Your task to perform on an android device: turn off javascript in the chrome app Image 0: 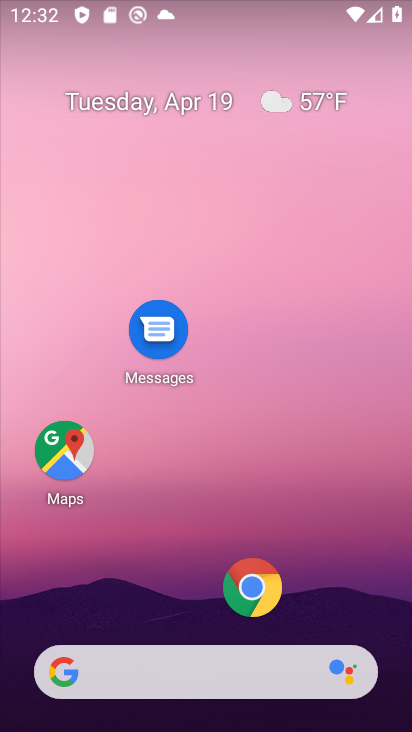
Step 0: drag from (189, 588) to (198, 195)
Your task to perform on an android device: turn off javascript in the chrome app Image 1: 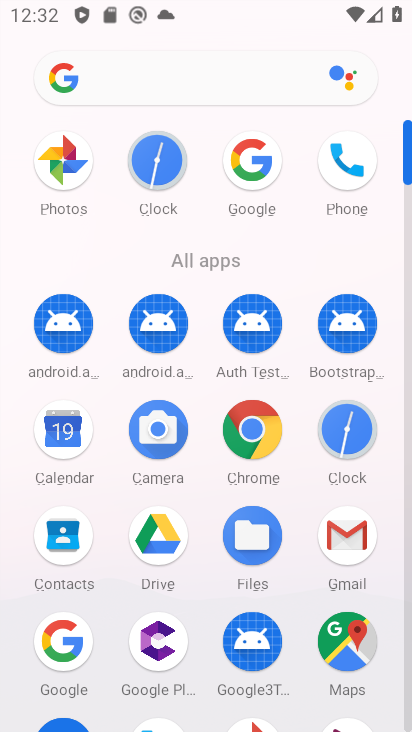
Step 1: click (252, 427)
Your task to perform on an android device: turn off javascript in the chrome app Image 2: 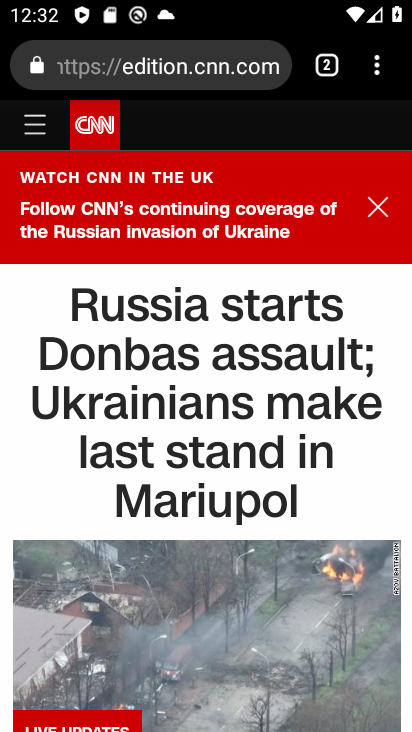
Step 2: click (374, 63)
Your task to perform on an android device: turn off javascript in the chrome app Image 3: 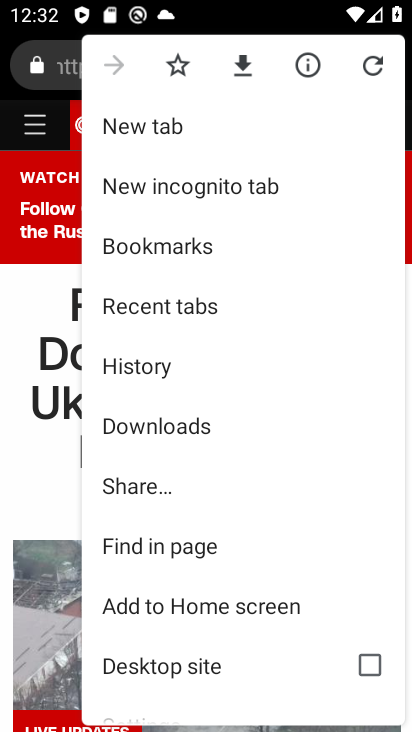
Step 3: drag from (250, 572) to (228, 120)
Your task to perform on an android device: turn off javascript in the chrome app Image 4: 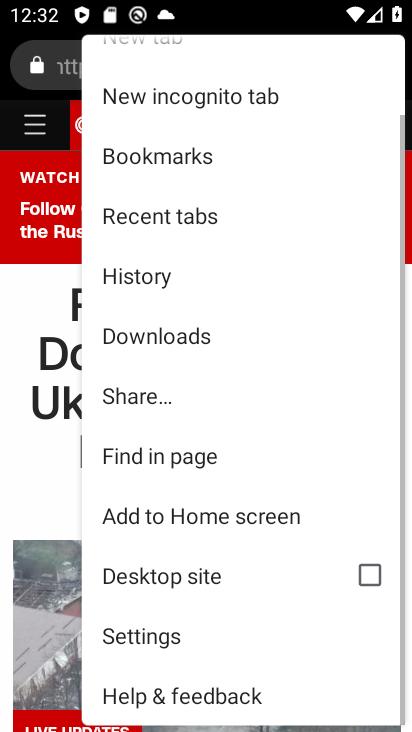
Step 4: click (176, 643)
Your task to perform on an android device: turn off javascript in the chrome app Image 5: 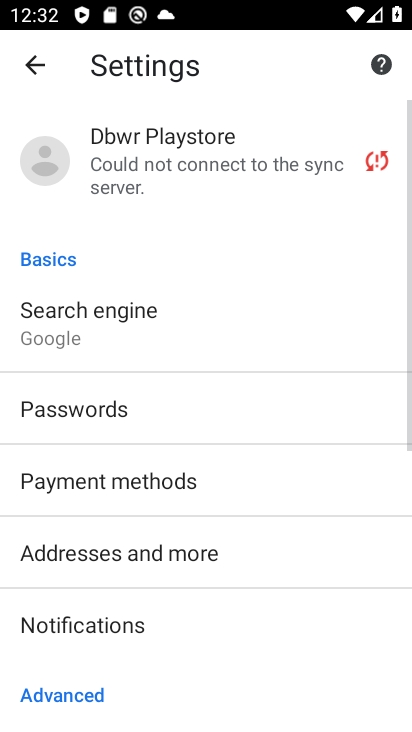
Step 5: drag from (236, 555) to (223, 227)
Your task to perform on an android device: turn off javascript in the chrome app Image 6: 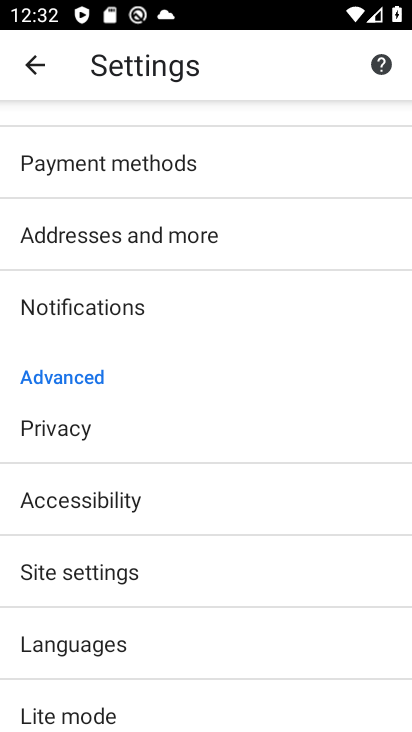
Step 6: click (112, 562)
Your task to perform on an android device: turn off javascript in the chrome app Image 7: 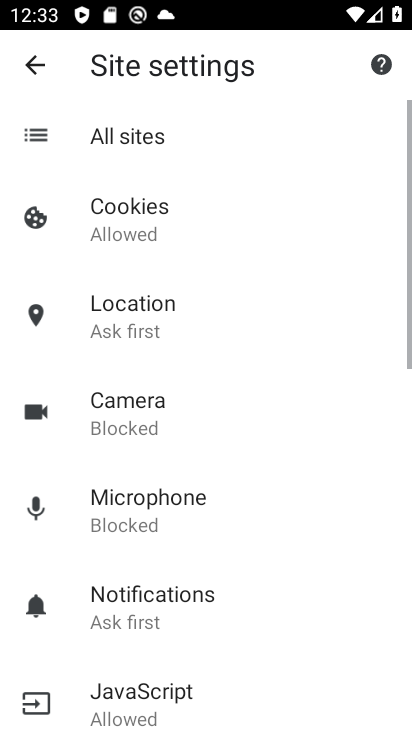
Step 7: drag from (231, 563) to (234, 314)
Your task to perform on an android device: turn off javascript in the chrome app Image 8: 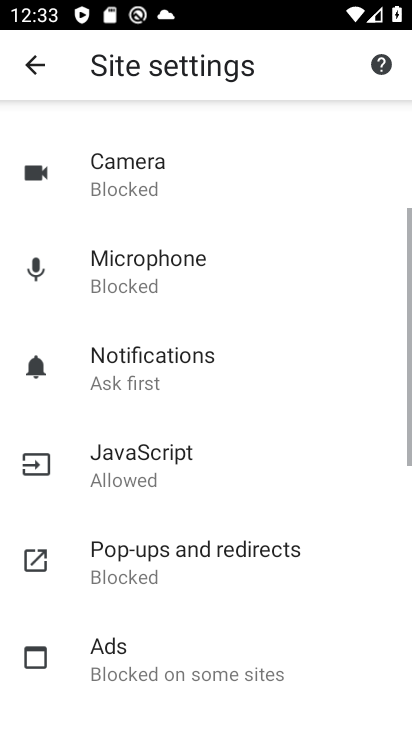
Step 8: click (147, 460)
Your task to perform on an android device: turn off javascript in the chrome app Image 9: 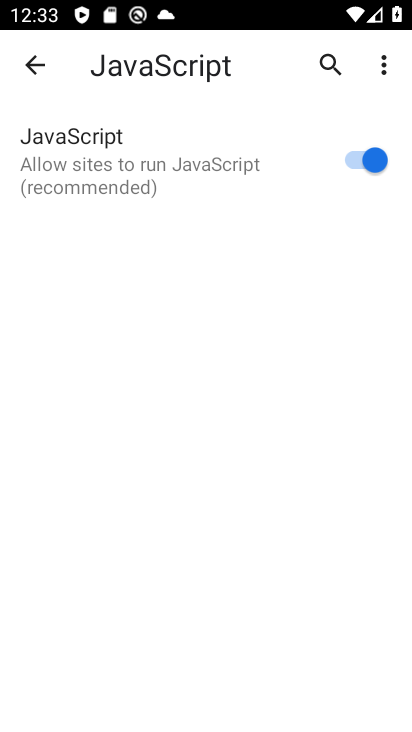
Step 9: click (362, 166)
Your task to perform on an android device: turn off javascript in the chrome app Image 10: 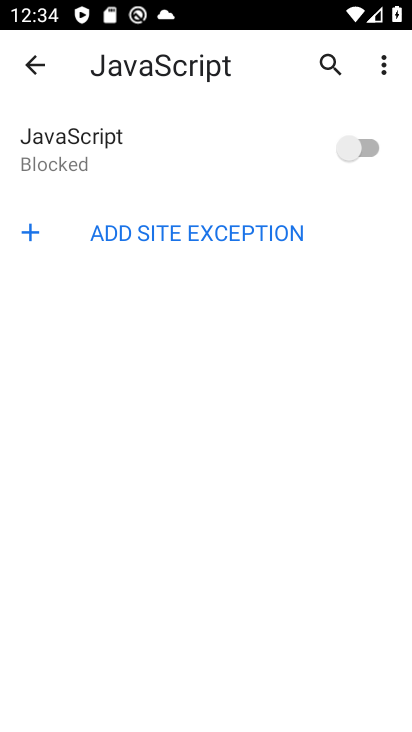
Step 10: task complete